Your task to perform on an android device: find snoozed emails in the gmail app Image 0: 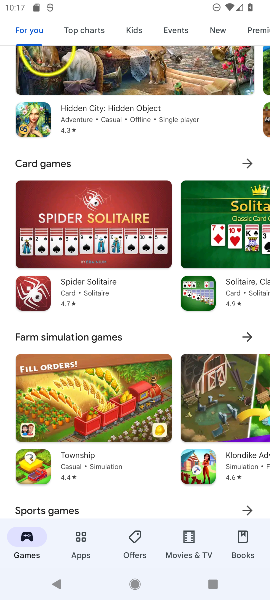
Step 0: press home button
Your task to perform on an android device: find snoozed emails in the gmail app Image 1: 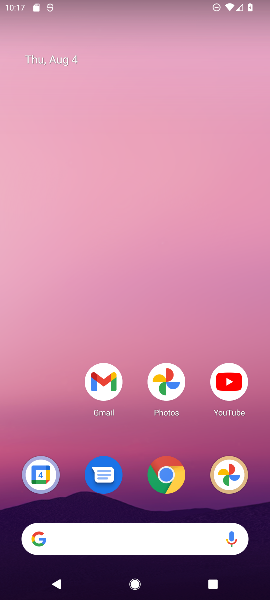
Step 1: drag from (188, 423) to (184, 32)
Your task to perform on an android device: find snoozed emails in the gmail app Image 2: 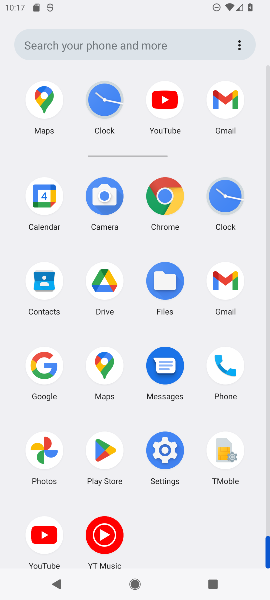
Step 2: click (229, 299)
Your task to perform on an android device: find snoozed emails in the gmail app Image 3: 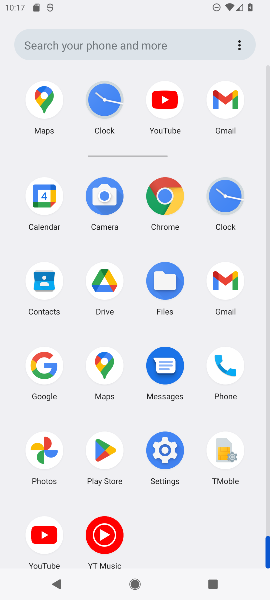
Step 3: click (229, 299)
Your task to perform on an android device: find snoozed emails in the gmail app Image 4: 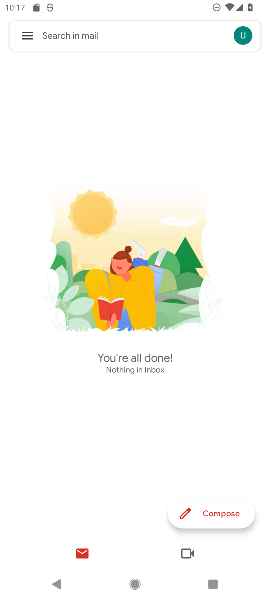
Step 4: drag from (150, 494) to (127, 175)
Your task to perform on an android device: find snoozed emails in the gmail app Image 5: 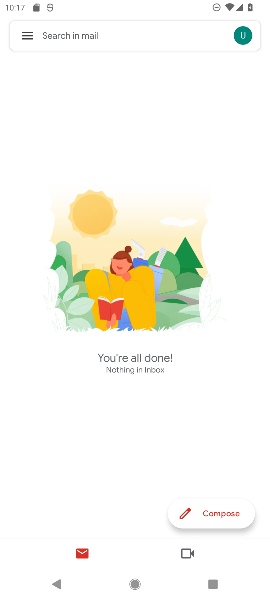
Step 5: click (27, 30)
Your task to perform on an android device: find snoozed emails in the gmail app Image 6: 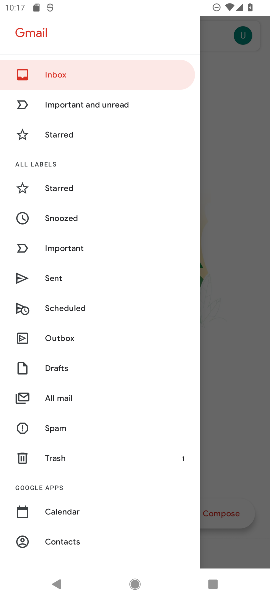
Step 6: click (67, 219)
Your task to perform on an android device: find snoozed emails in the gmail app Image 7: 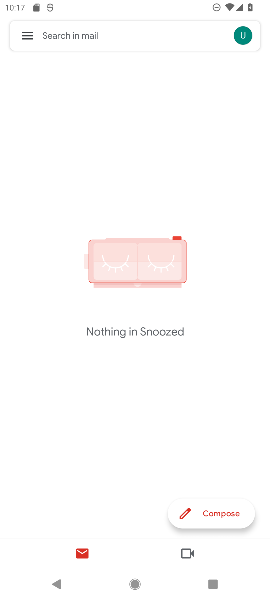
Step 7: drag from (150, 403) to (163, 230)
Your task to perform on an android device: find snoozed emails in the gmail app Image 8: 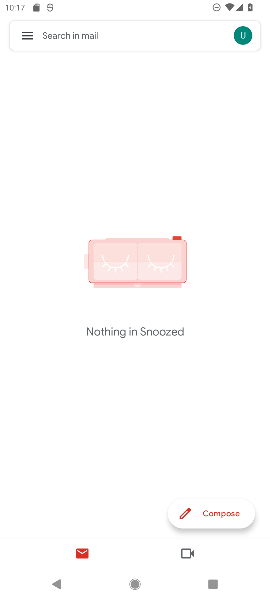
Step 8: click (30, 28)
Your task to perform on an android device: find snoozed emails in the gmail app Image 9: 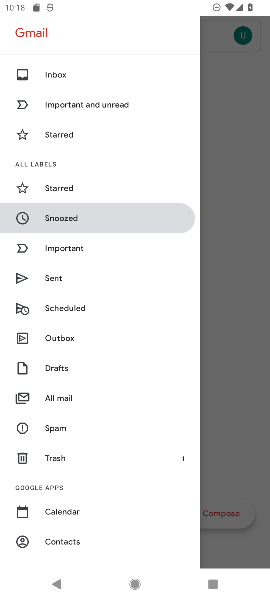
Step 9: click (57, 217)
Your task to perform on an android device: find snoozed emails in the gmail app Image 10: 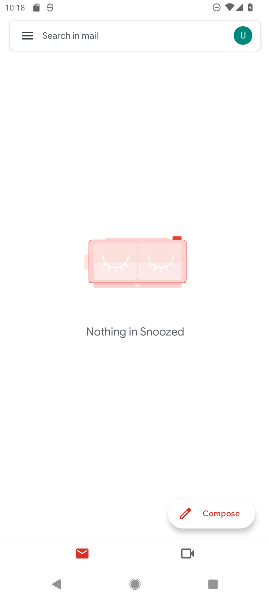
Step 10: drag from (126, 405) to (127, 186)
Your task to perform on an android device: find snoozed emails in the gmail app Image 11: 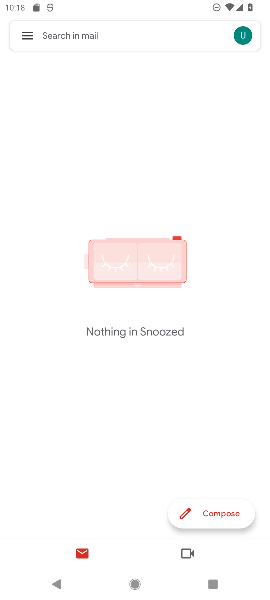
Step 11: drag from (102, 142) to (141, 451)
Your task to perform on an android device: find snoozed emails in the gmail app Image 12: 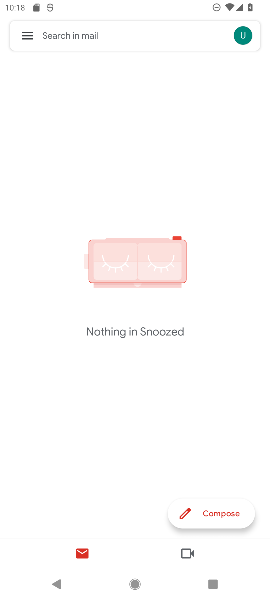
Step 12: drag from (136, 440) to (127, 161)
Your task to perform on an android device: find snoozed emails in the gmail app Image 13: 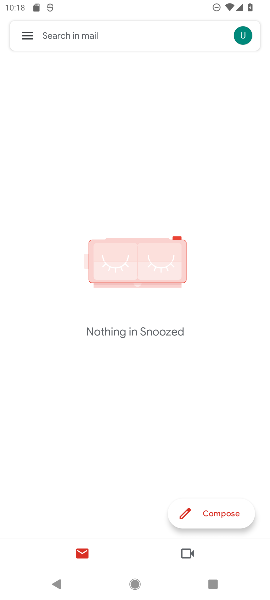
Step 13: click (145, 300)
Your task to perform on an android device: find snoozed emails in the gmail app Image 14: 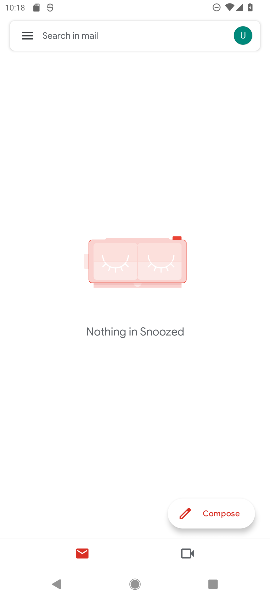
Step 14: click (37, 33)
Your task to perform on an android device: find snoozed emails in the gmail app Image 15: 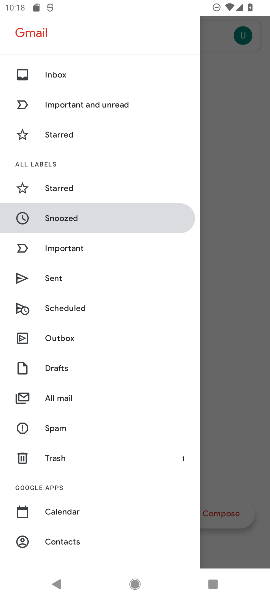
Step 15: task complete